Your task to perform on an android device: Check the weather Image 0: 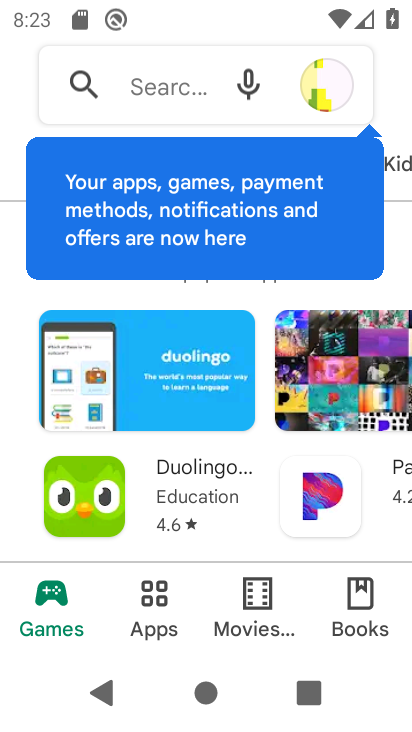
Step 0: press home button
Your task to perform on an android device: Check the weather Image 1: 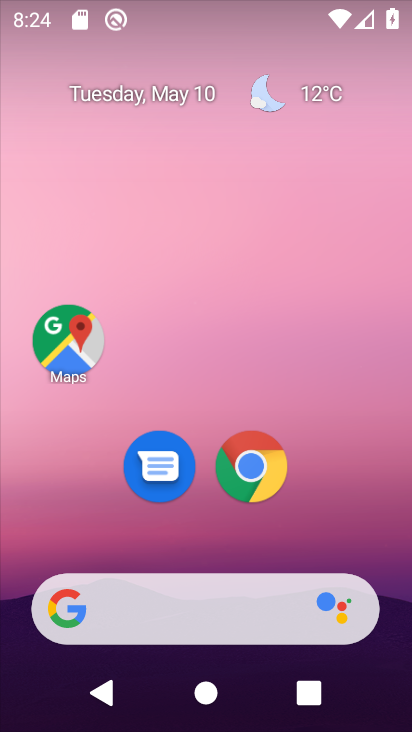
Step 1: click (313, 102)
Your task to perform on an android device: Check the weather Image 2: 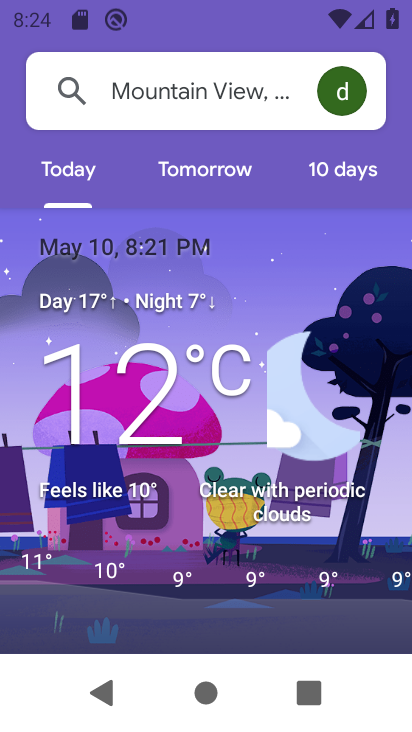
Step 2: task complete